Your task to perform on an android device: Go to display settings Image 0: 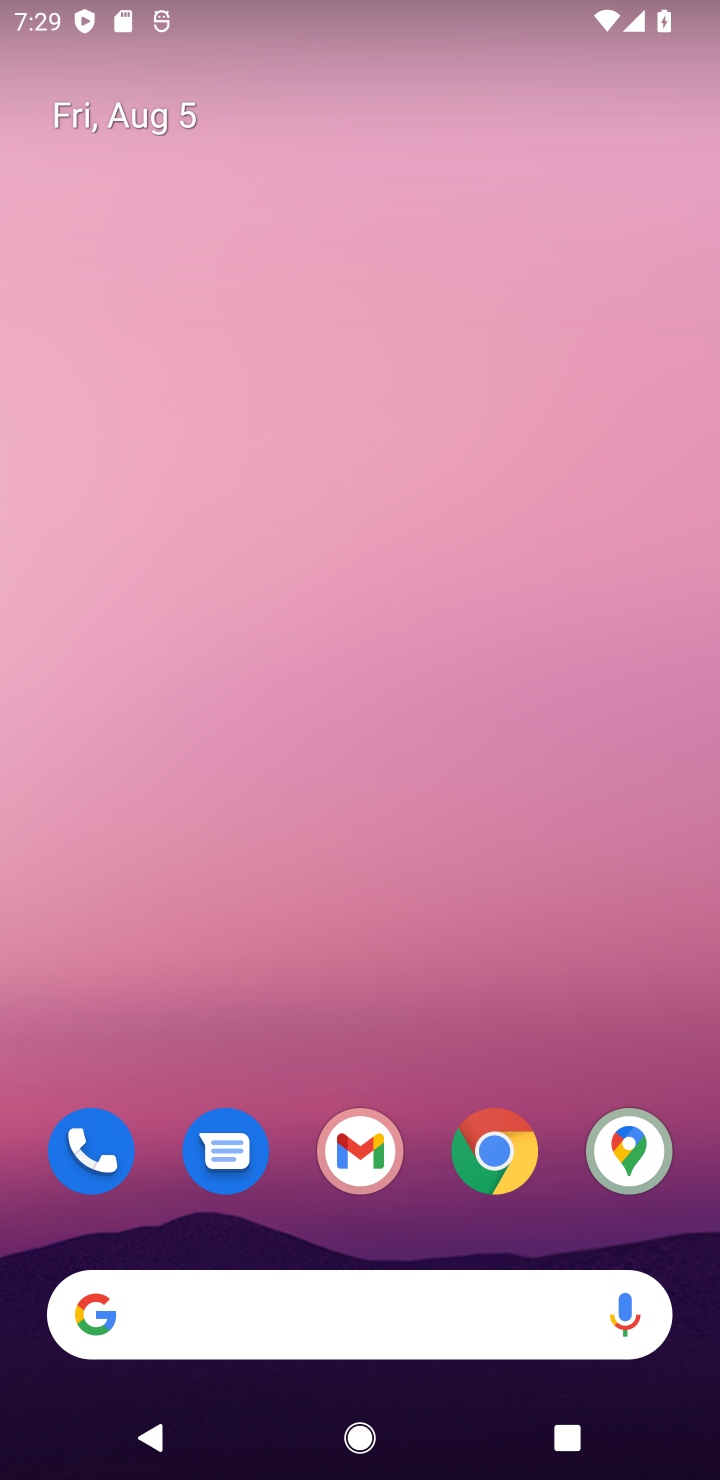
Step 0: drag from (356, 1239) to (367, 141)
Your task to perform on an android device: Go to display settings Image 1: 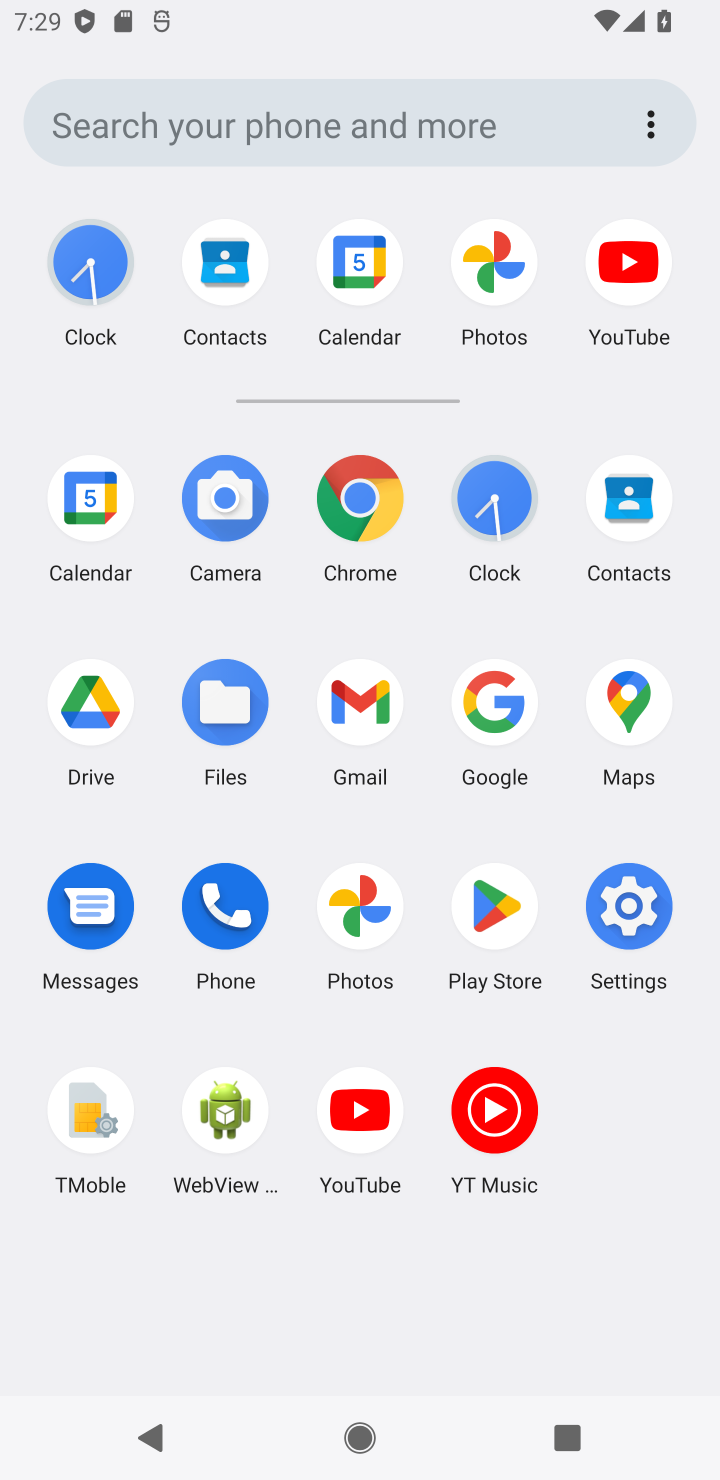
Step 1: click (615, 903)
Your task to perform on an android device: Go to display settings Image 2: 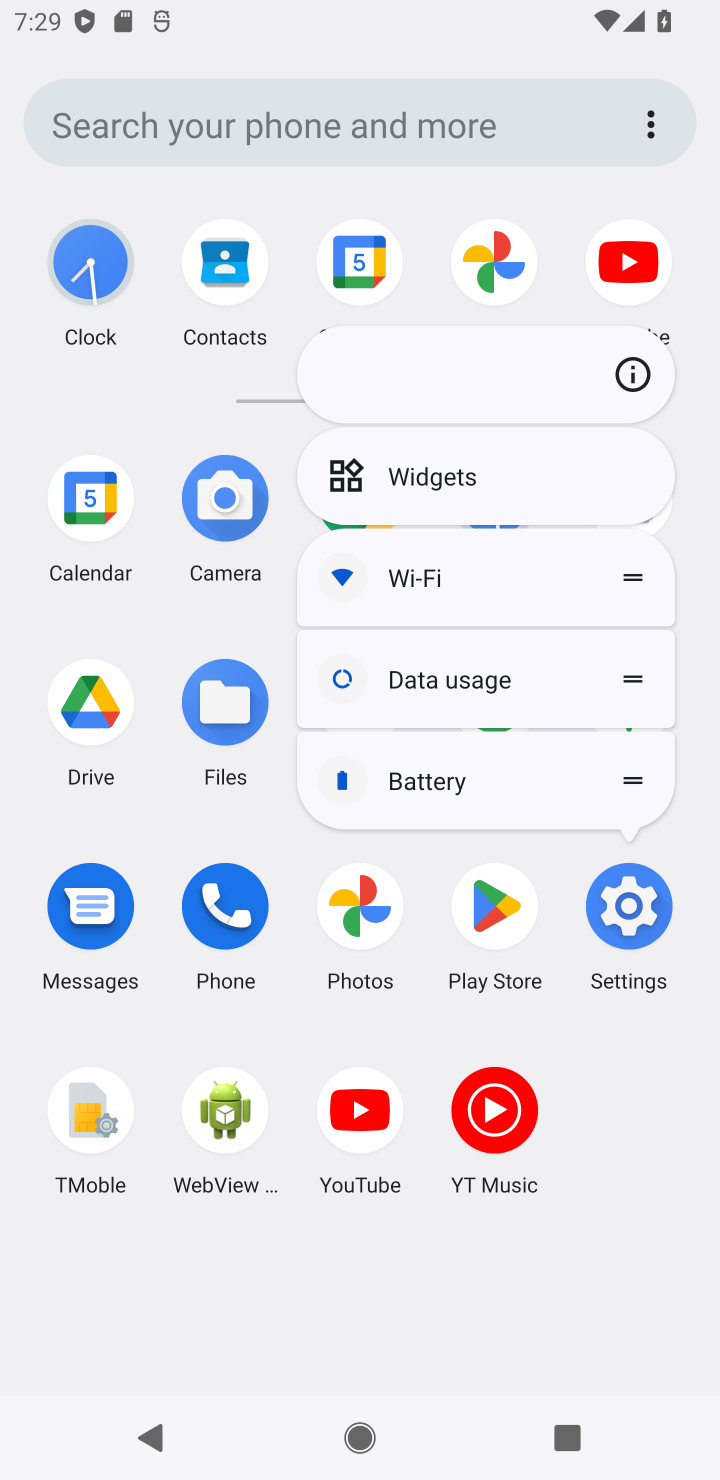
Step 2: click (635, 952)
Your task to perform on an android device: Go to display settings Image 3: 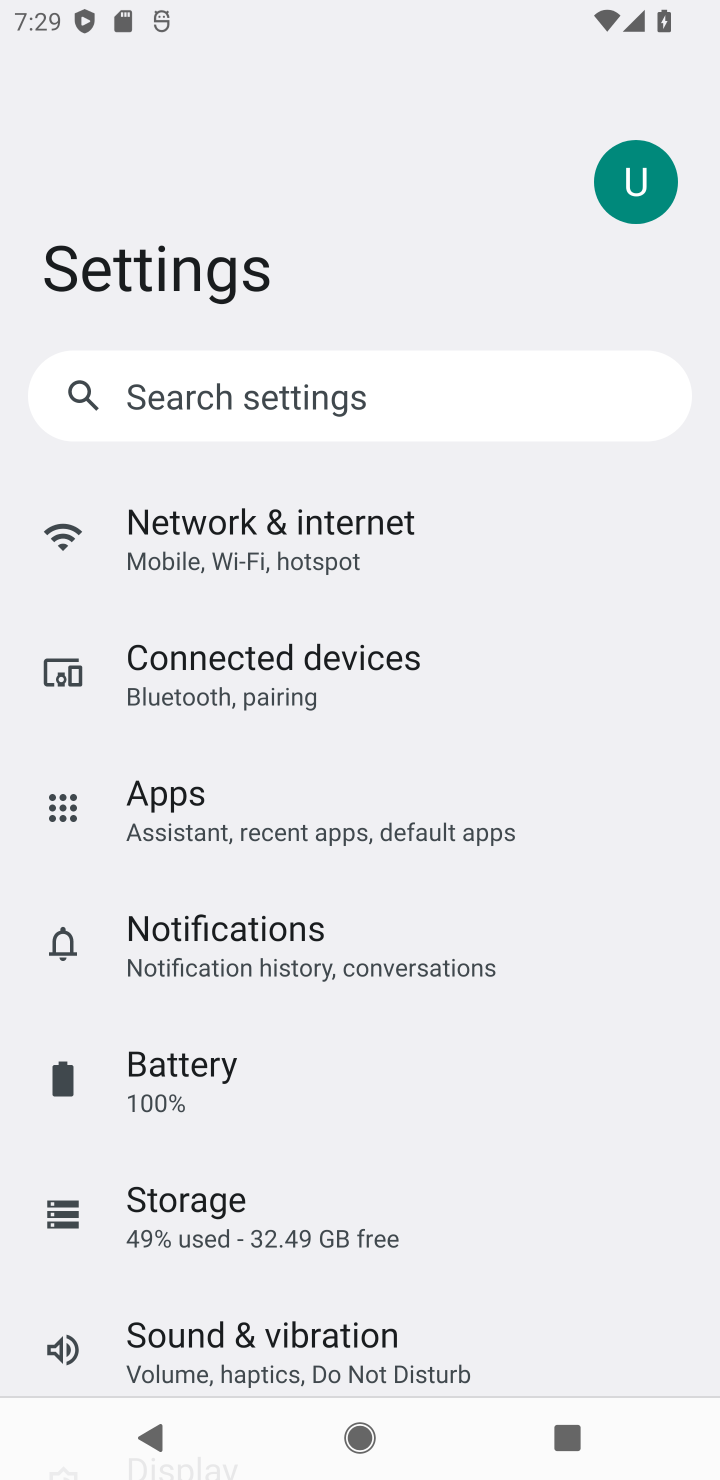
Step 3: drag from (177, 1166) to (161, 480)
Your task to perform on an android device: Go to display settings Image 4: 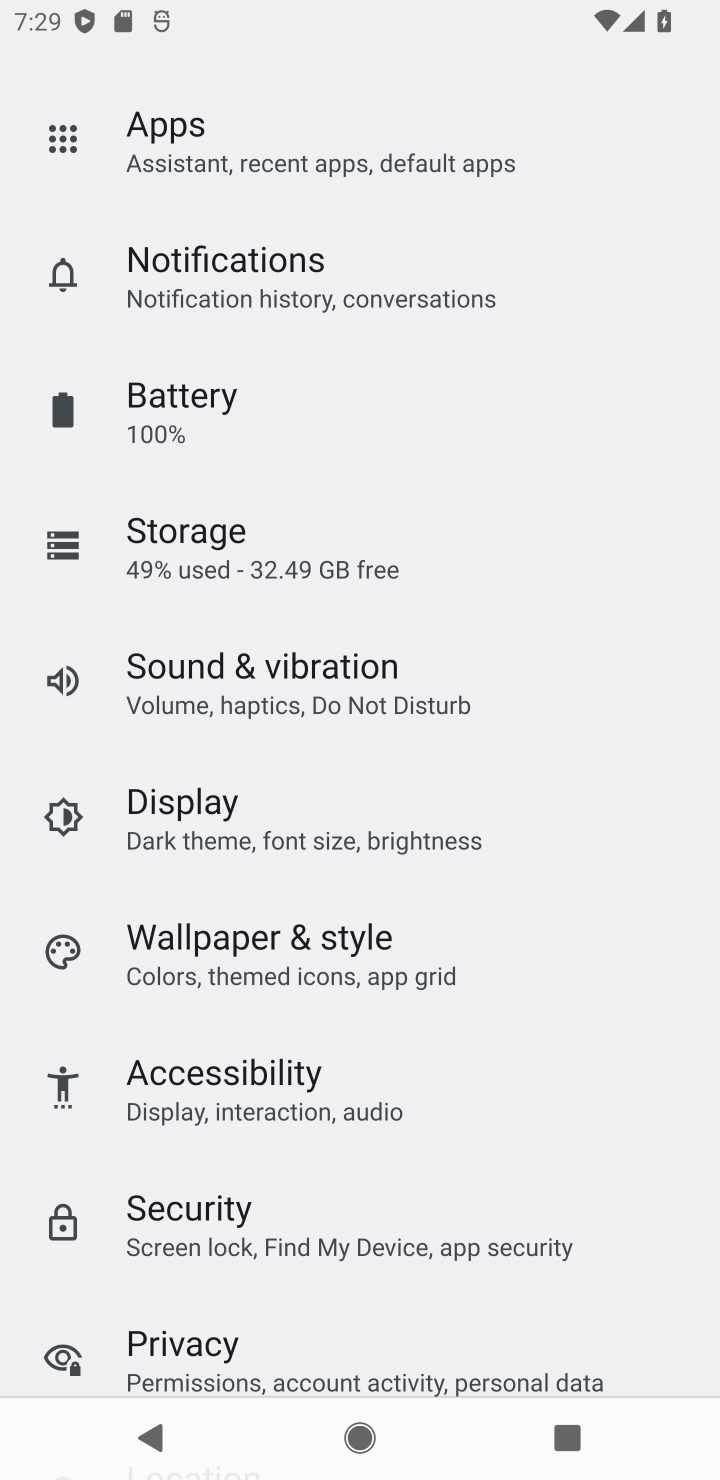
Step 4: click (211, 781)
Your task to perform on an android device: Go to display settings Image 5: 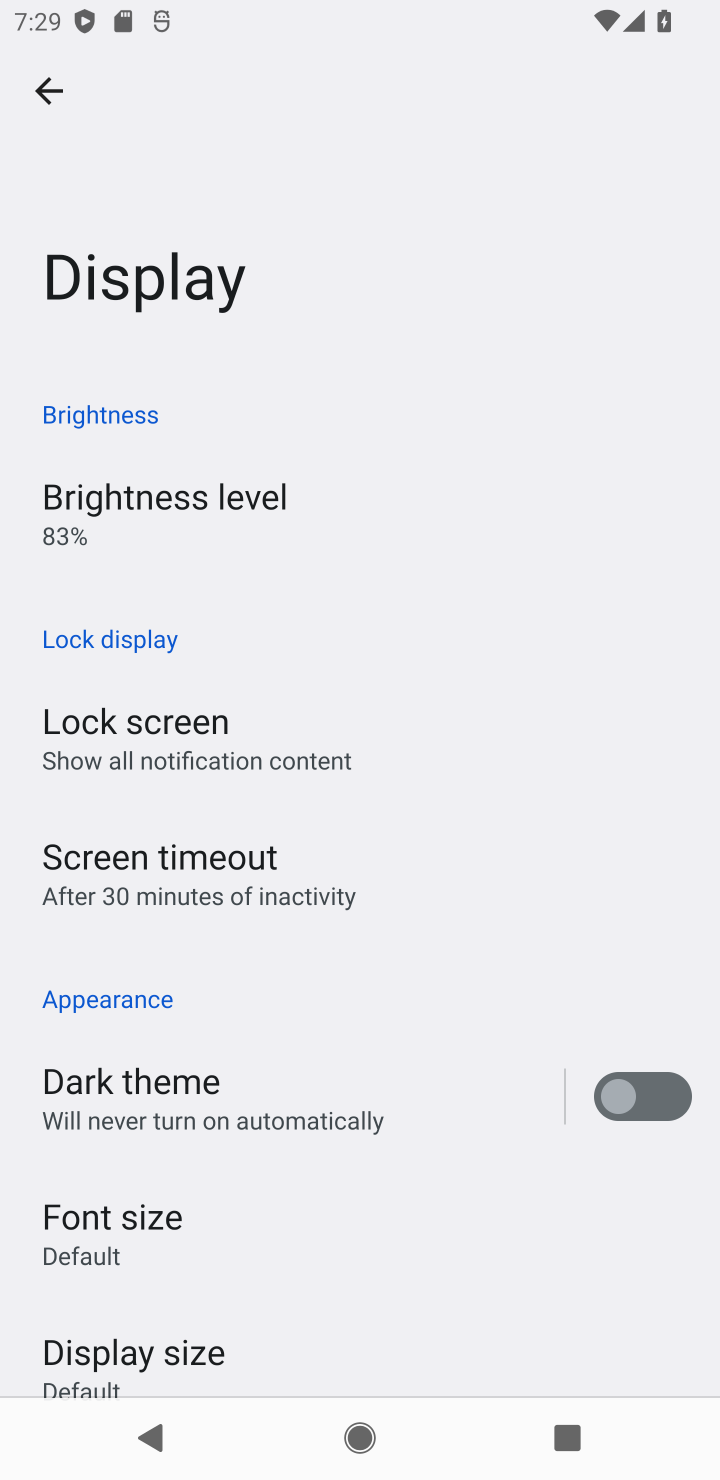
Step 5: task complete